Your task to perform on an android device: Open settings on Google Maps Image 0: 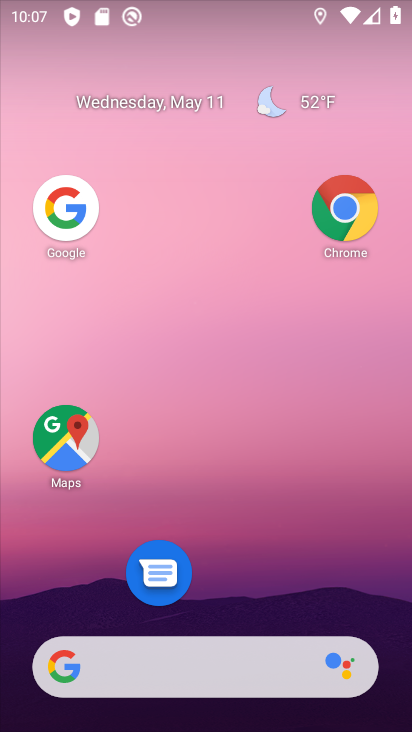
Step 0: click (66, 444)
Your task to perform on an android device: Open settings on Google Maps Image 1: 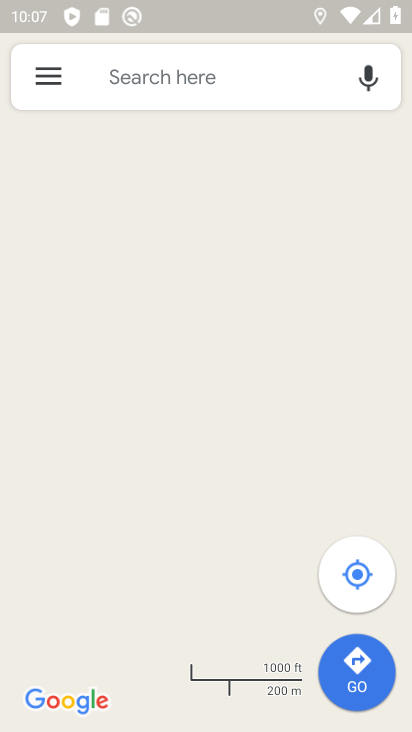
Step 1: click (28, 62)
Your task to perform on an android device: Open settings on Google Maps Image 2: 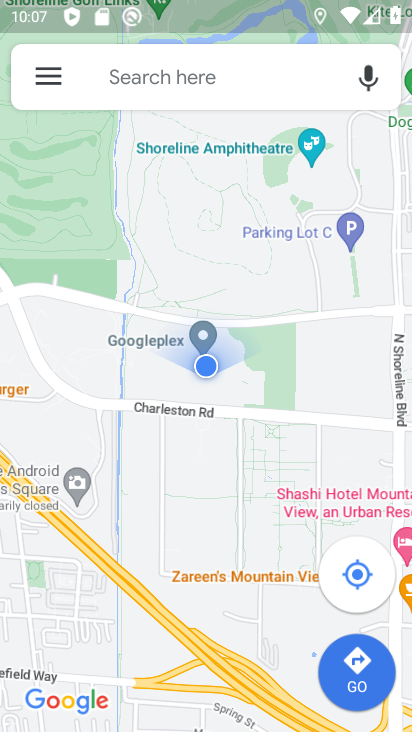
Step 2: click (50, 67)
Your task to perform on an android device: Open settings on Google Maps Image 3: 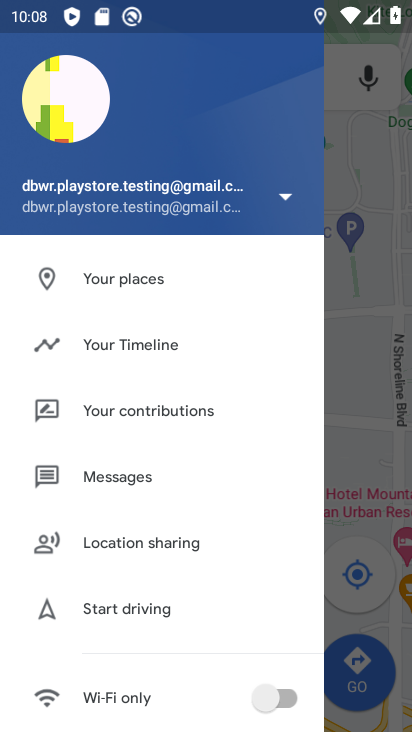
Step 3: drag from (126, 656) to (72, 348)
Your task to perform on an android device: Open settings on Google Maps Image 4: 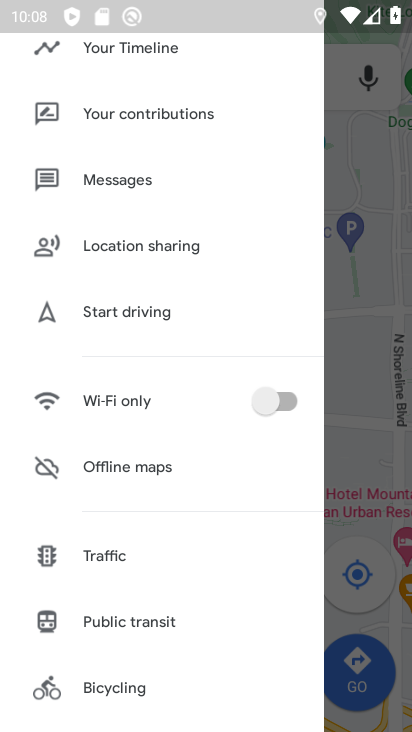
Step 4: drag from (164, 530) to (134, 257)
Your task to perform on an android device: Open settings on Google Maps Image 5: 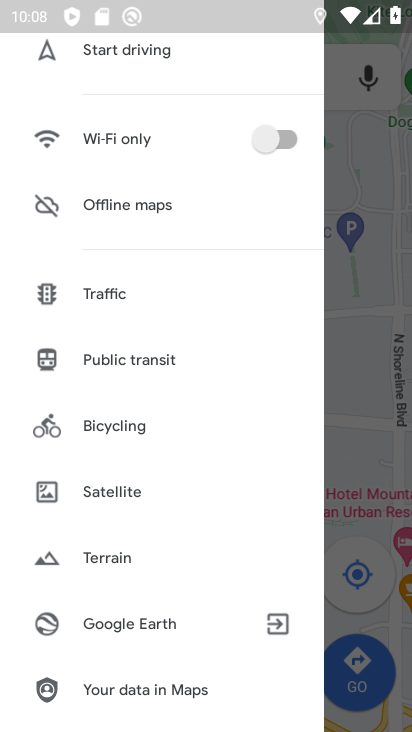
Step 5: drag from (156, 688) to (153, 300)
Your task to perform on an android device: Open settings on Google Maps Image 6: 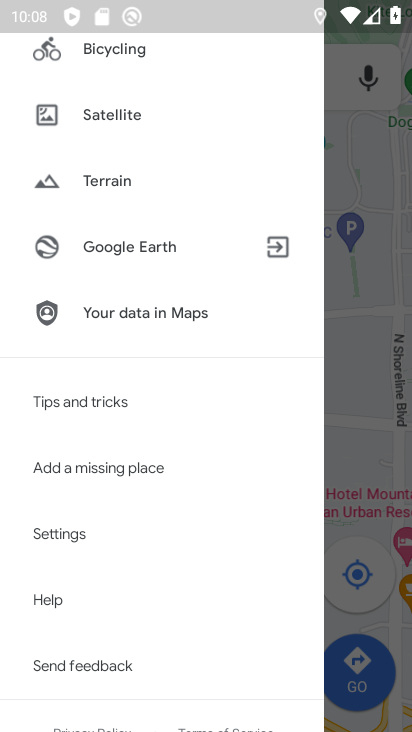
Step 6: click (52, 520)
Your task to perform on an android device: Open settings on Google Maps Image 7: 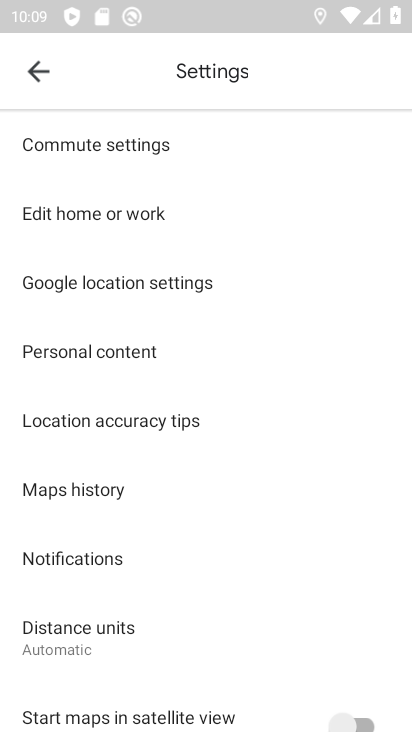
Step 7: task complete